Your task to perform on an android device: Check the news Image 0: 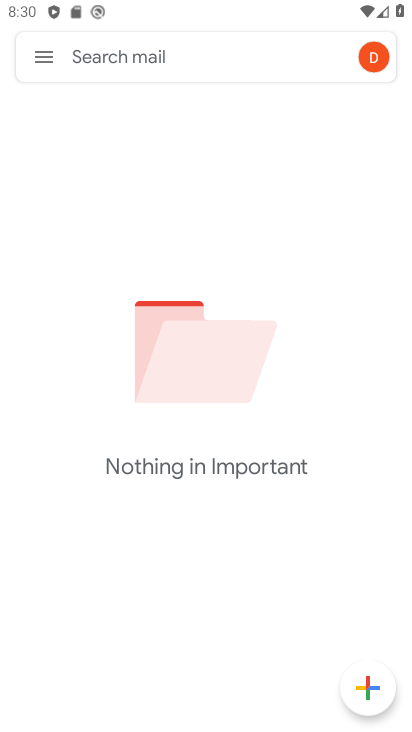
Step 0: press home button
Your task to perform on an android device: Check the news Image 1: 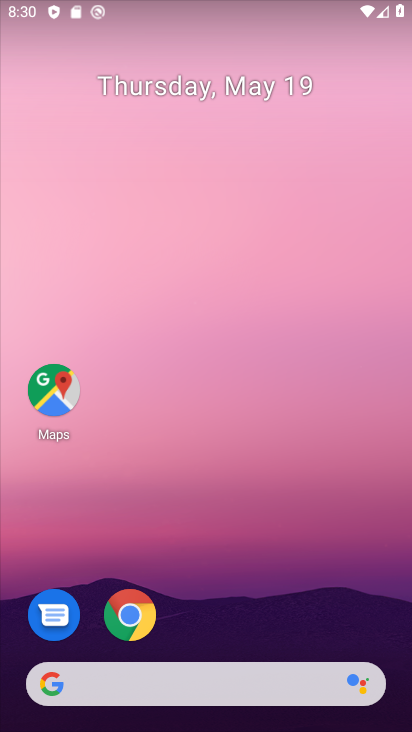
Step 1: click (207, 673)
Your task to perform on an android device: Check the news Image 2: 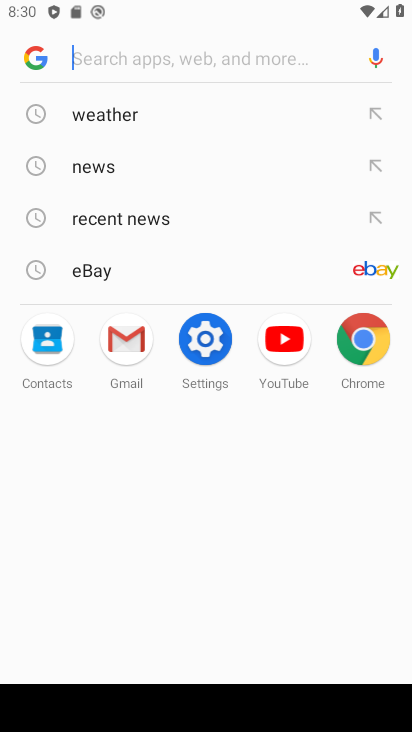
Step 2: click (116, 163)
Your task to perform on an android device: Check the news Image 3: 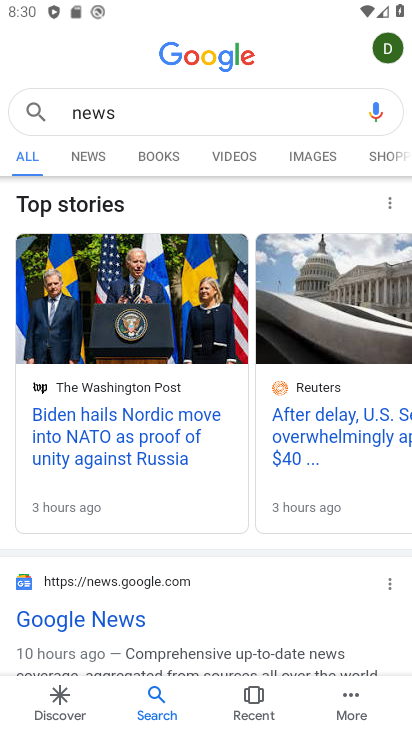
Step 3: task complete